Your task to perform on an android device: See recent photos Image 0: 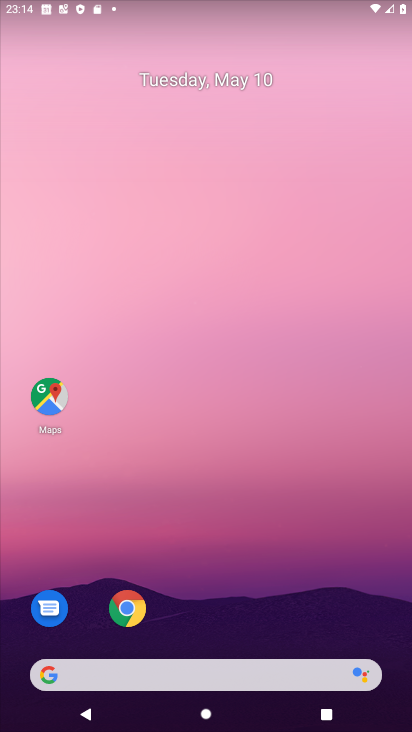
Step 0: drag from (248, 628) to (233, 284)
Your task to perform on an android device: See recent photos Image 1: 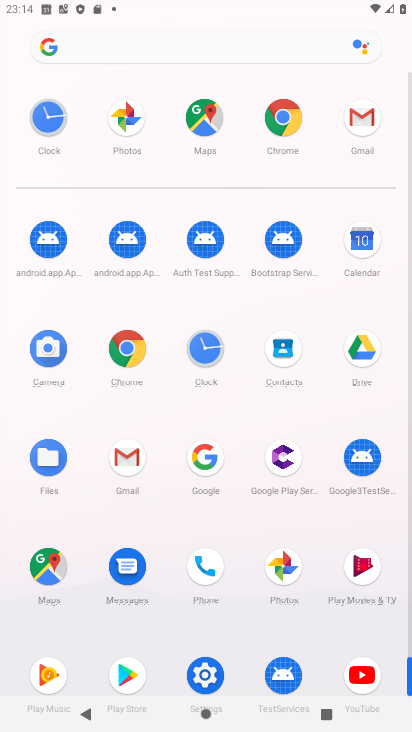
Step 1: click (271, 559)
Your task to perform on an android device: See recent photos Image 2: 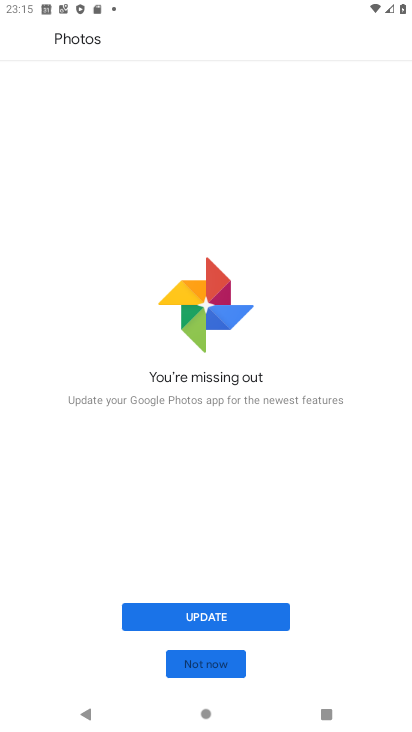
Step 2: click (218, 667)
Your task to perform on an android device: See recent photos Image 3: 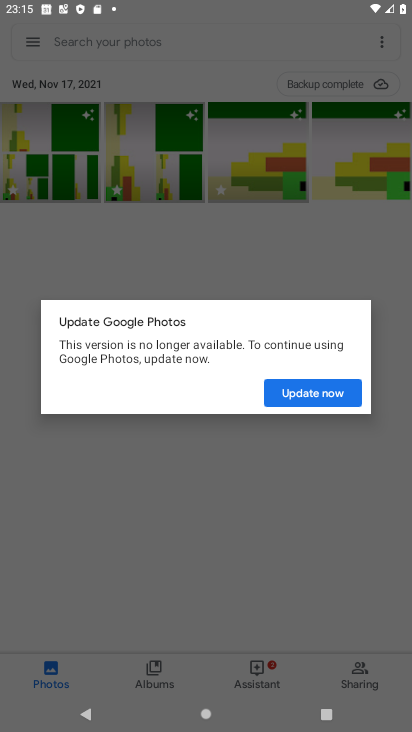
Step 3: click (310, 392)
Your task to perform on an android device: See recent photos Image 4: 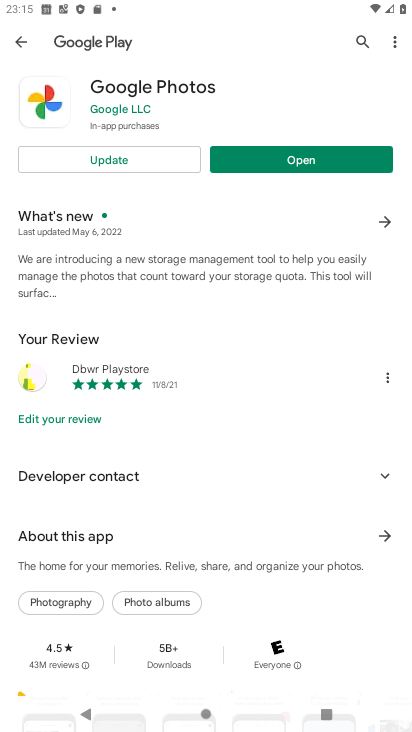
Step 4: press back button
Your task to perform on an android device: See recent photos Image 5: 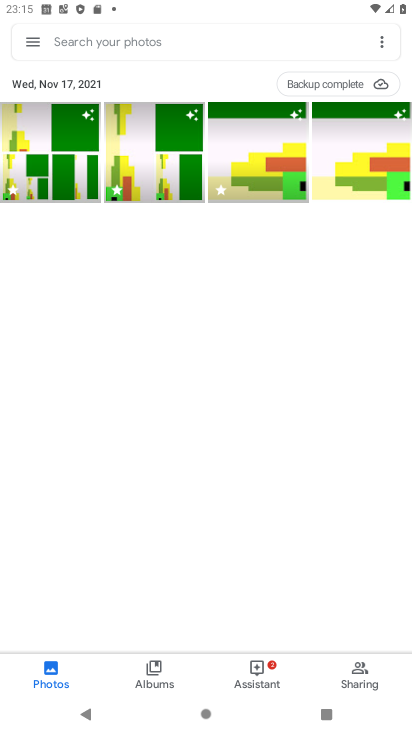
Step 5: click (63, 166)
Your task to perform on an android device: See recent photos Image 6: 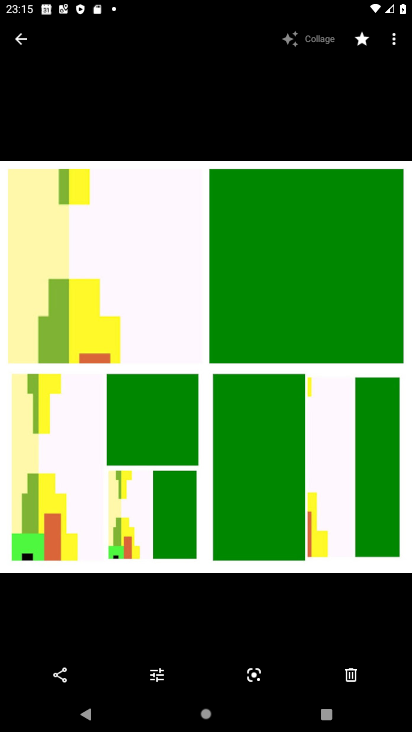
Step 6: task complete